Your task to perform on an android device: Open CNN.com Image 0: 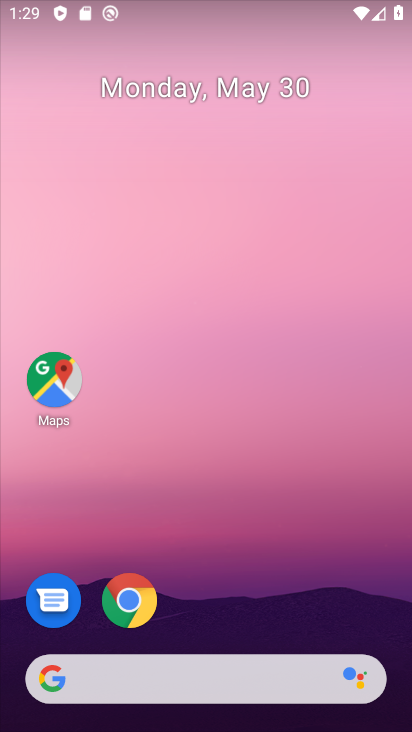
Step 0: click (141, 600)
Your task to perform on an android device: Open CNN.com Image 1: 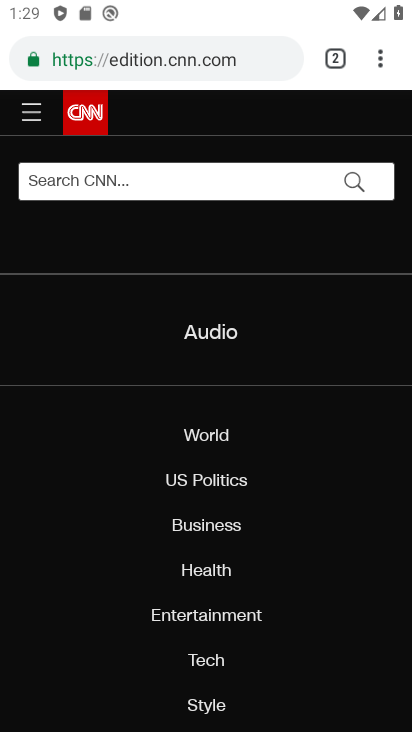
Step 1: task complete